Your task to perform on an android device: toggle sleep mode Image 0: 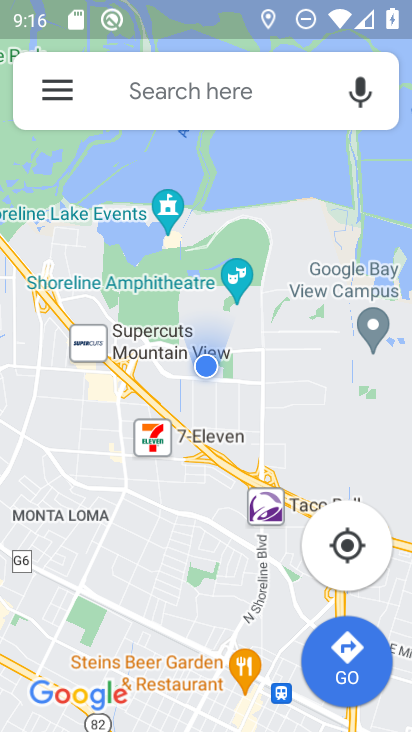
Step 0: press home button
Your task to perform on an android device: toggle sleep mode Image 1: 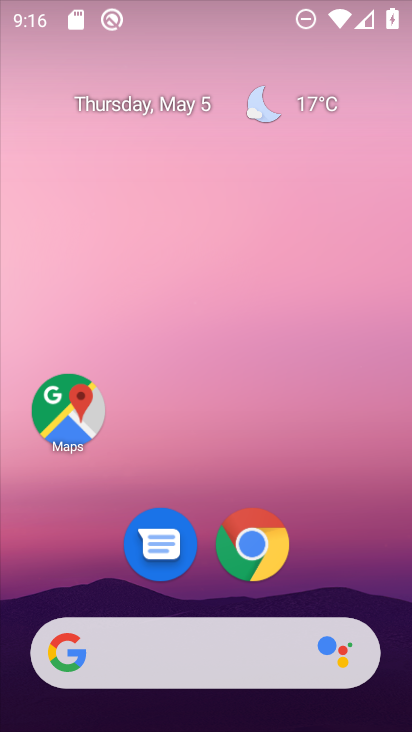
Step 1: drag from (387, 635) to (320, 81)
Your task to perform on an android device: toggle sleep mode Image 2: 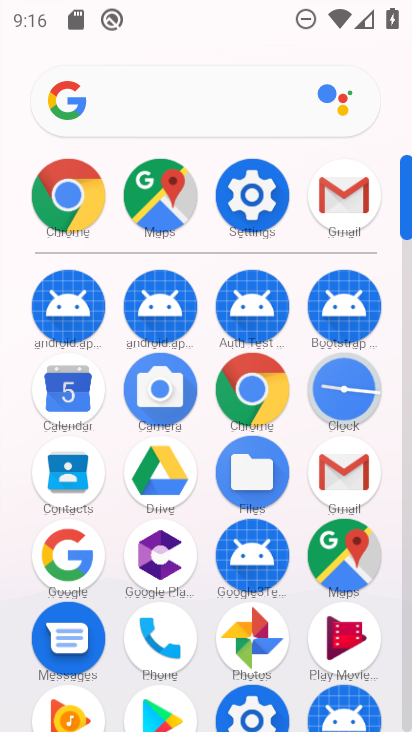
Step 2: click (237, 197)
Your task to perform on an android device: toggle sleep mode Image 3: 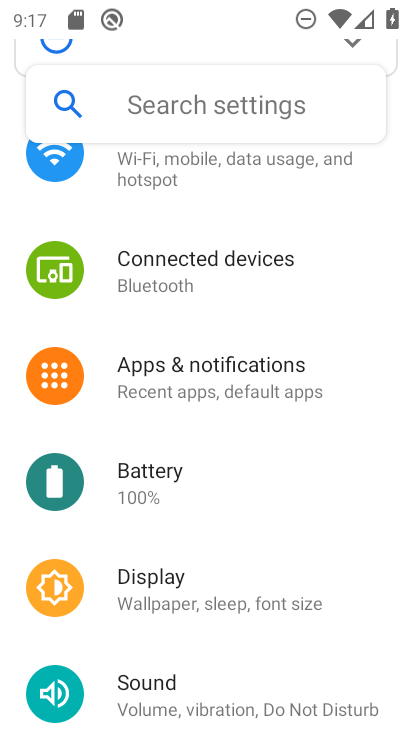
Step 3: task complete